Your task to perform on an android device: View the shopping cart on ebay. Search for "logitech g502" on ebay, select the first entry, and add it to the cart. Image 0: 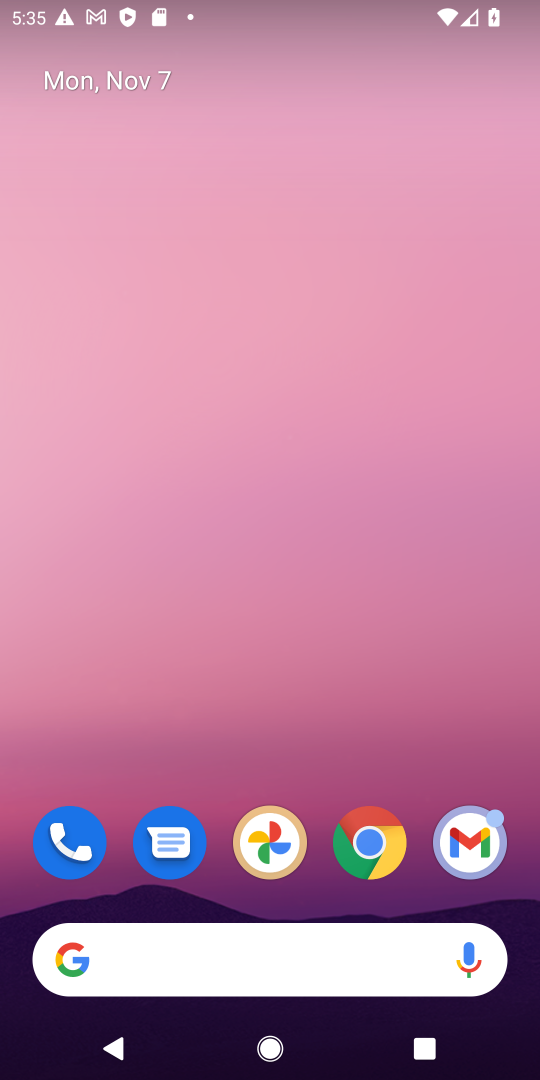
Step 0: drag from (198, 948) to (146, 29)
Your task to perform on an android device: View the shopping cart on ebay. Search for "logitech g502" on ebay, select the first entry, and add it to the cart. Image 1: 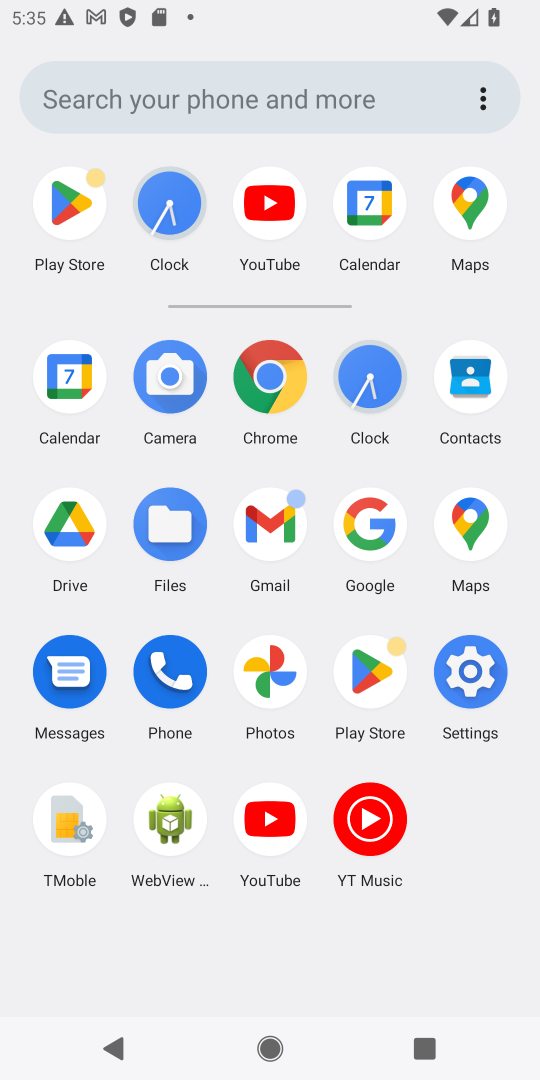
Step 1: click (278, 387)
Your task to perform on an android device: View the shopping cart on ebay. Search for "logitech g502" on ebay, select the first entry, and add it to the cart. Image 2: 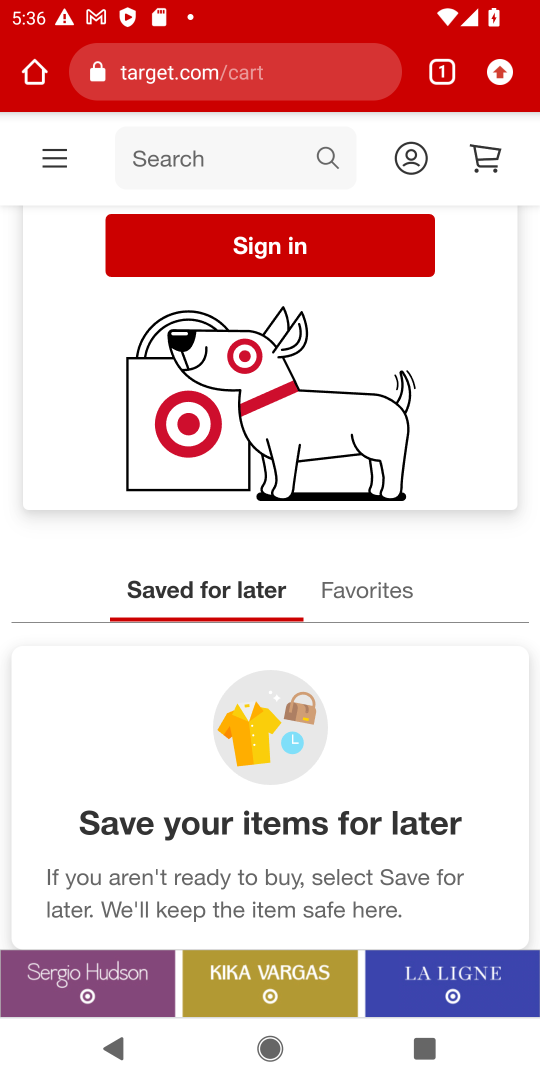
Step 2: click (174, 63)
Your task to perform on an android device: View the shopping cart on ebay. Search for "logitech g502" on ebay, select the first entry, and add it to the cart. Image 3: 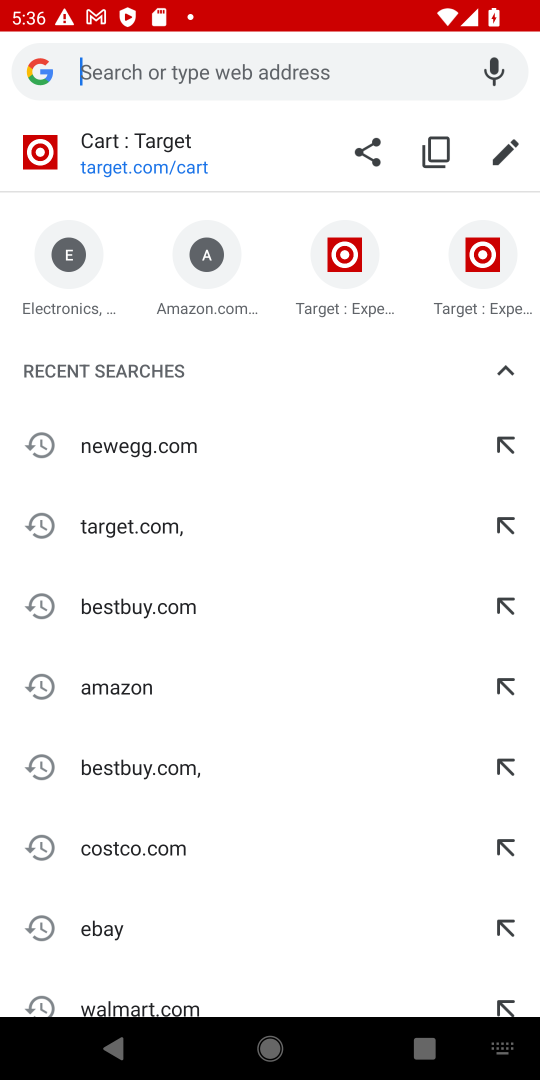
Step 3: type "ebay"
Your task to perform on an android device: View the shopping cart on ebay. Search for "logitech g502" on ebay, select the first entry, and add it to the cart. Image 4: 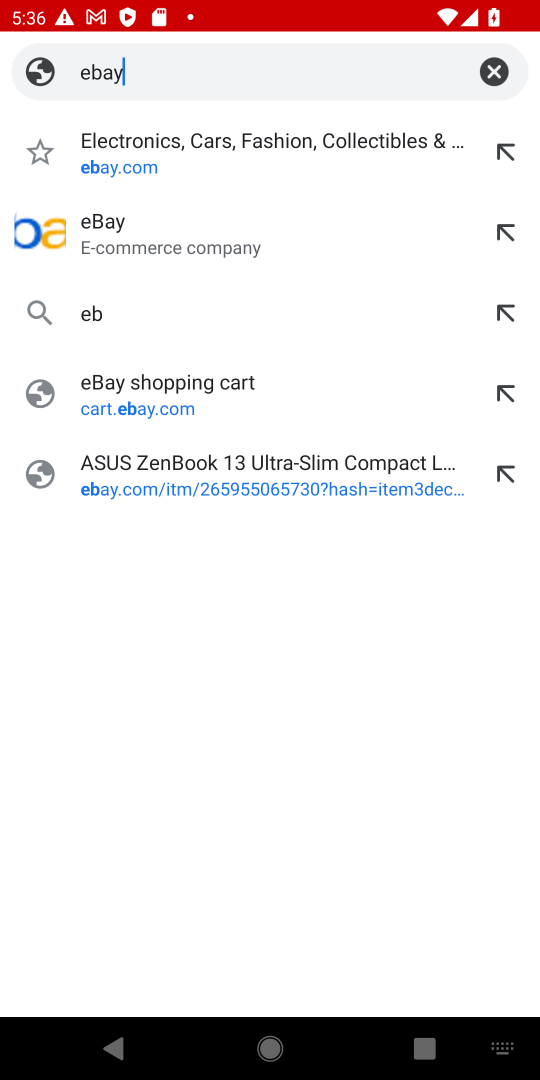
Step 4: press enter
Your task to perform on an android device: View the shopping cart on ebay. Search for "logitech g502" on ebay, select the first entry, and add it to the cart. Image 5: 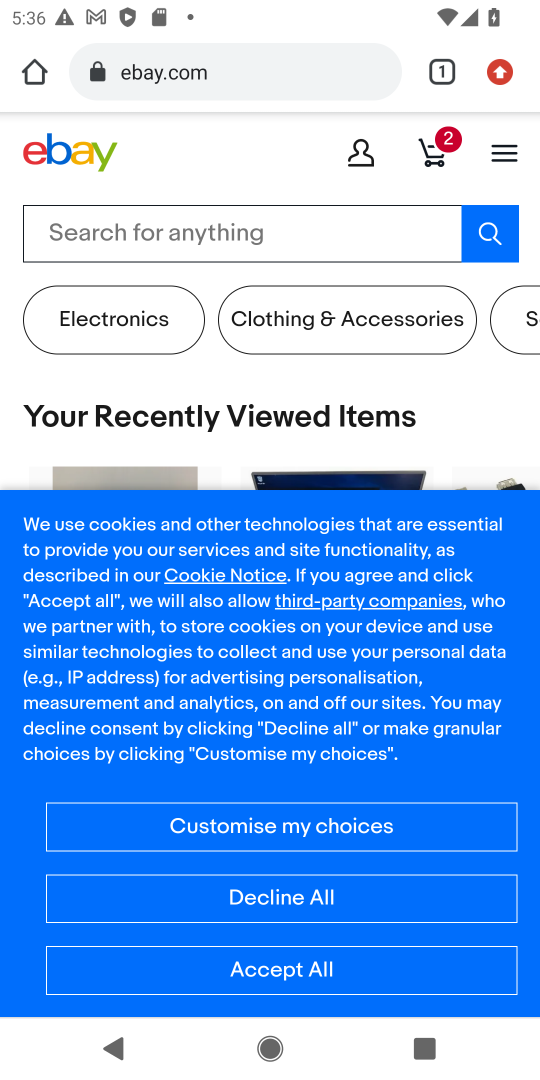
Step 5: click (115, 234)
Your task to perform on an android device: View the shopping cart on ebay. Search for "logitech g502" on ebay, select the first entry, and add it to the cart. Image 6: 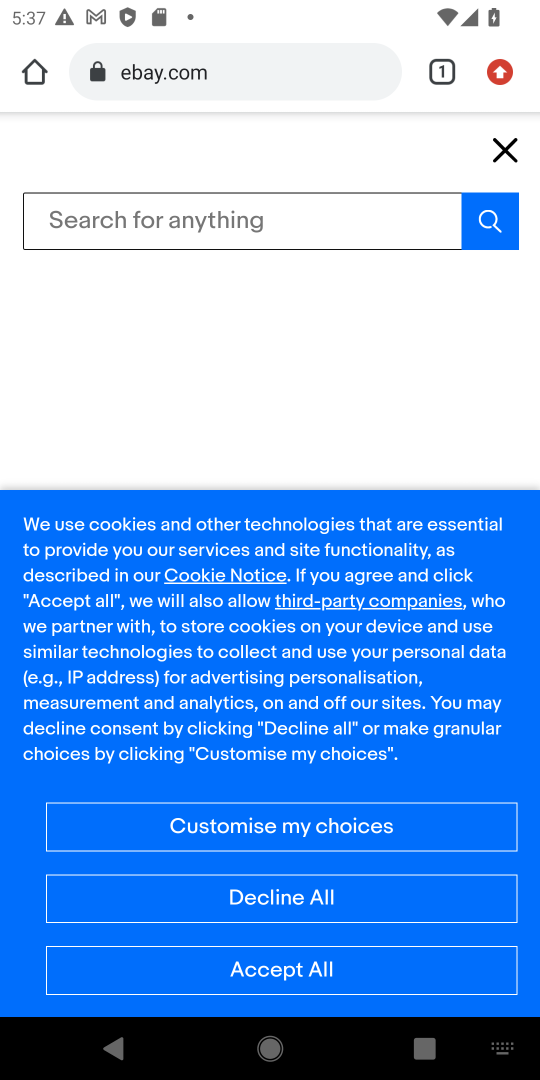
Step 6: type "logitech g502"
Your task to perform on an android device: View the shopping cart on ebay. Search for "logitech g502" on ebay, select the first entry, and add it to the cart. Image 7: 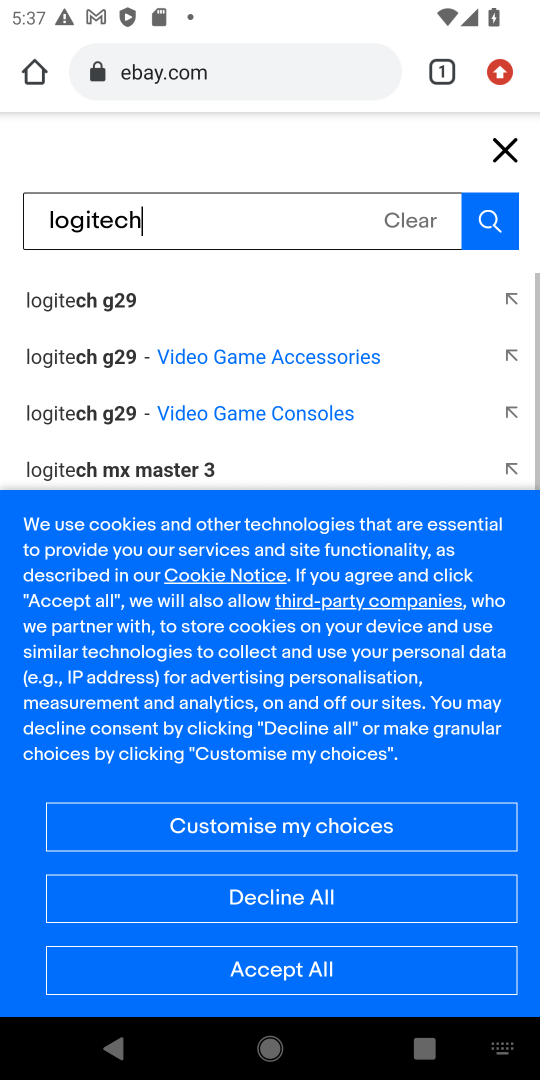
Step 7: press enter
Your task to perform on an android device: View the shopping cart on ebay. Search for "logitech g502" on ebay, select the first entry, and add it to the cart. Image 8: 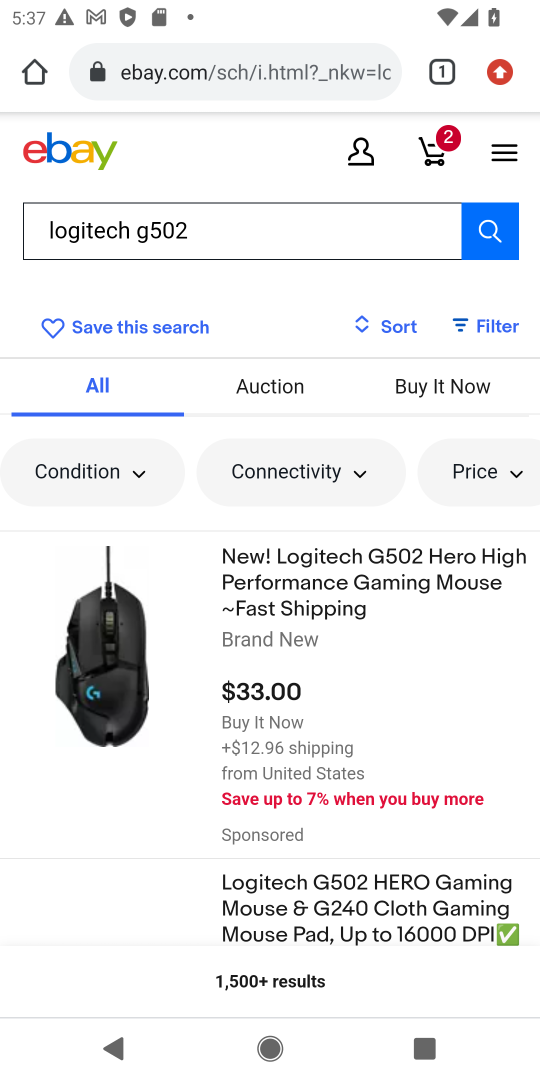
Step 8: drag from (363, 782) to (345, 423)
Your task to perform on an android device: View the shopping cart on ebay. Search for "logitech g502" on ebay, select the first entry, and add it to the cart. Image 9: 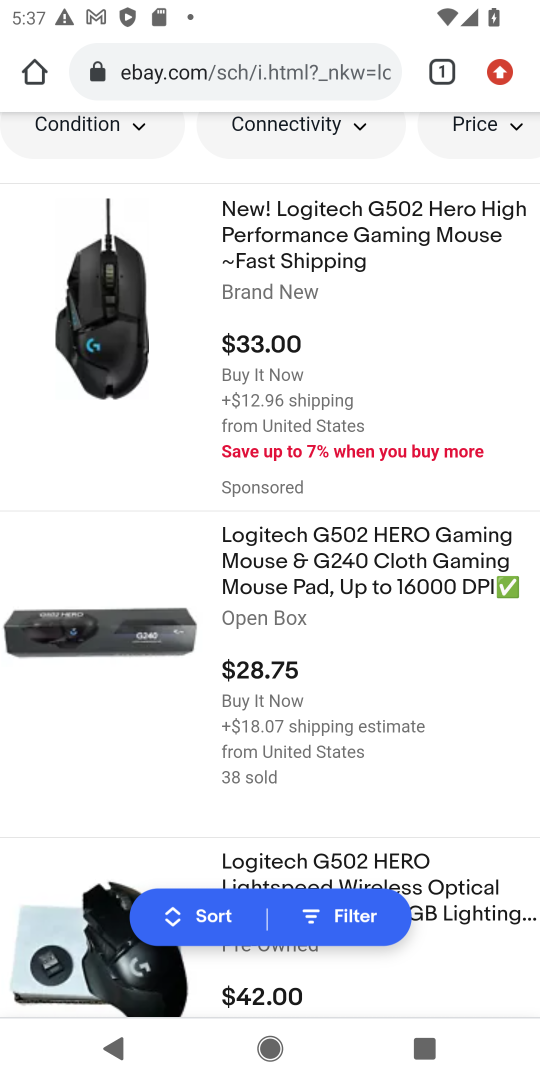
Step 9: click (305, 291)
Your task to perform on an android device: View the shopping cart on ebay. Search for "logitech g502" on ebay, select the first entry, and add it to the cart. Image 10: 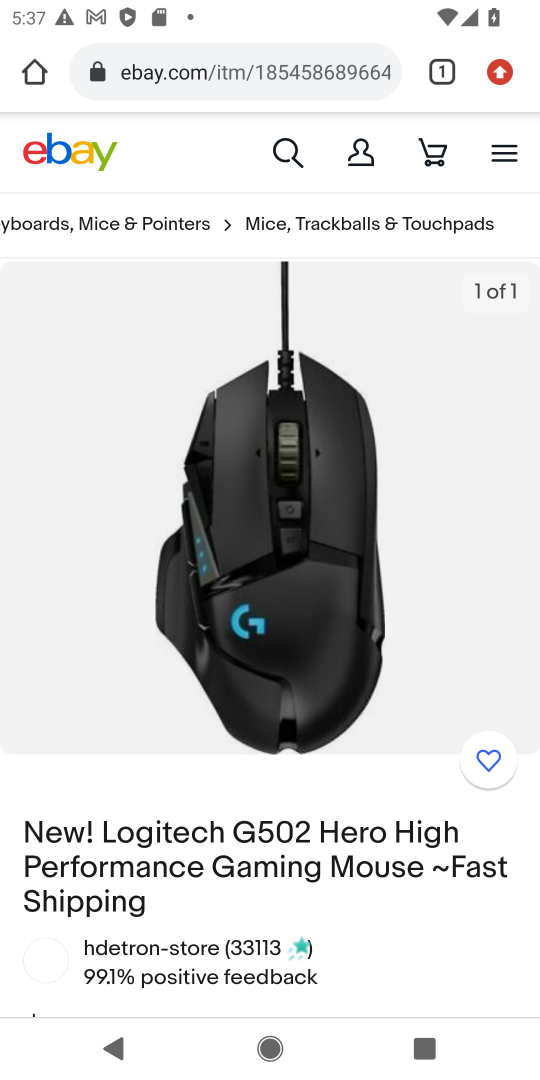
Step 10: drag from (383, 912) to (317, 453)
Your task to perform on an android device: View the shopping cart on ebay. Search for "logitech g502" on ebay, select the first entry, and add it to the cart. Image 11: 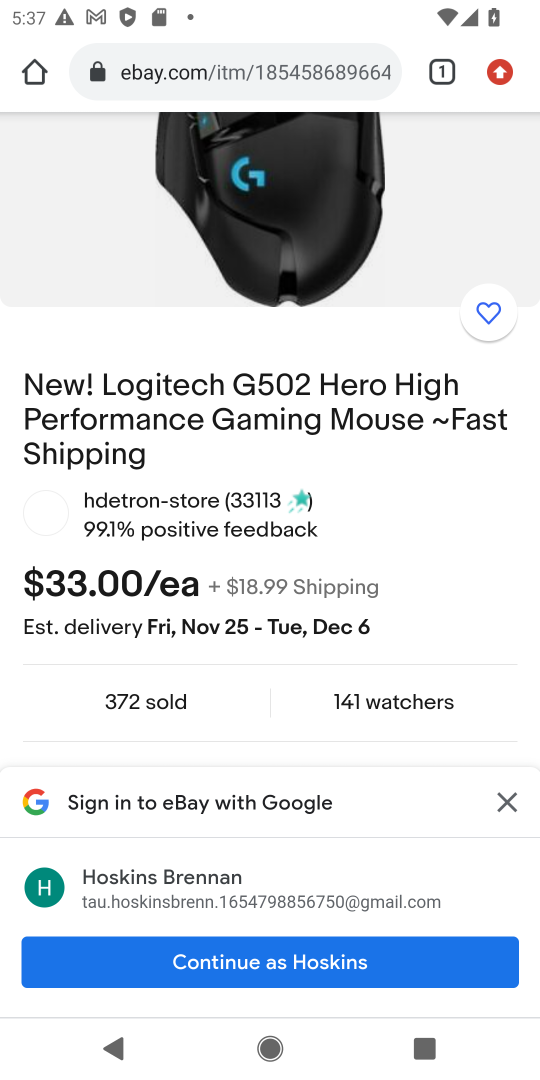
Step 11: drag from (363, 889) to (325, 324)
Your task to perform on an android device: View the shopping cart on ebay. Search for "logitech g502" on ebay, select the first entry, and add it to the cart. Image 12: 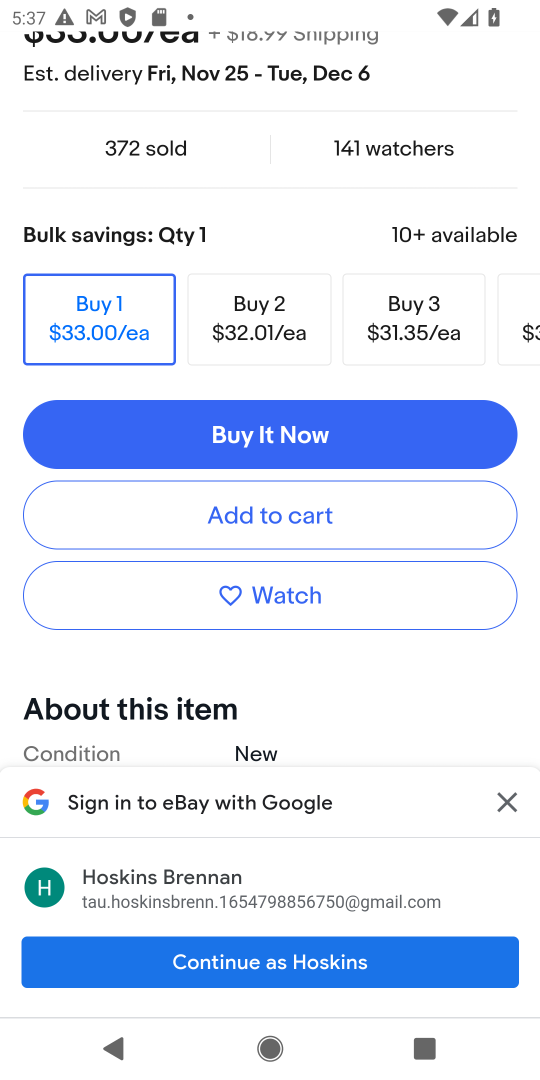
Step 12: click (275, 519)
Your task to perform on an android device: View the shopping cart on ebay. Search for "logitech g502" on ebay, select the first entry, and add it to the cart. Image 13: 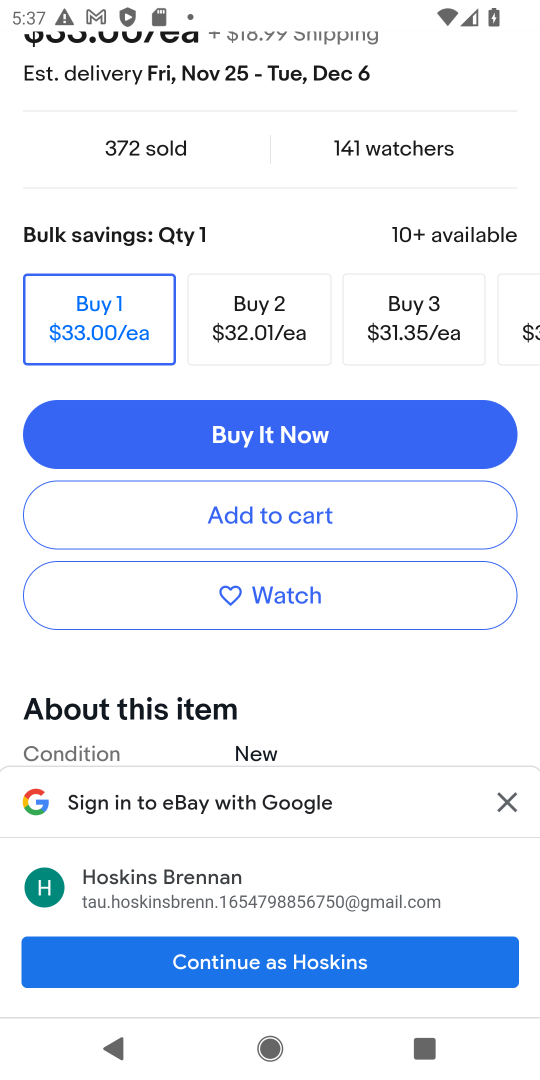
Step 13: click (312, 516)
Your task to perform on an android device: View the shopping cart on ebay. Search for "logitech g502" on ebay, select the first entry, and add it to the cart. Image 14: 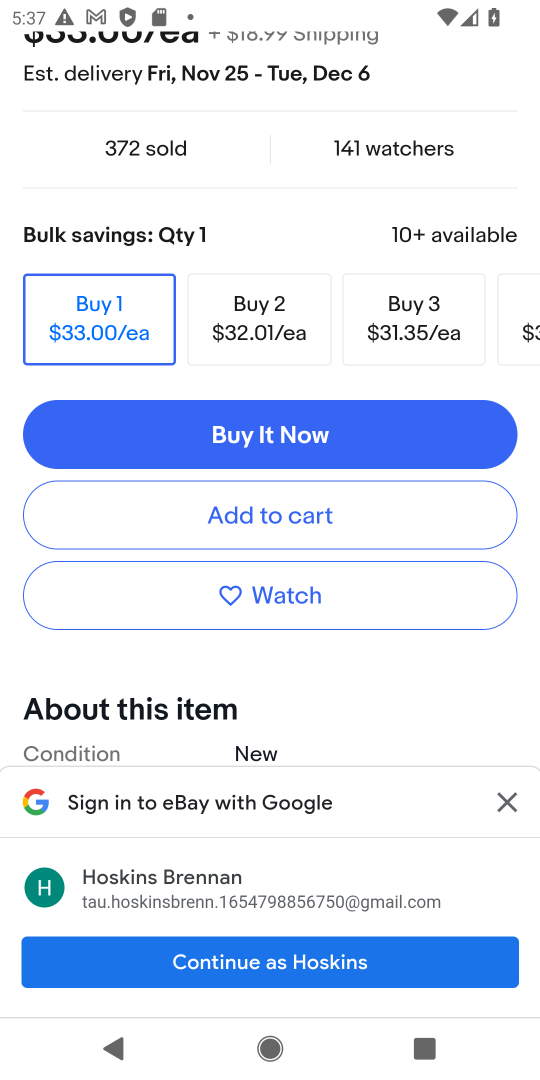
Step 14: click (283, 517)
Your task to perform on an android device: View the shopping cart on ebay. Search for "logitech g502" on ebay, select the first entry, and add it to the cart. Image 15: 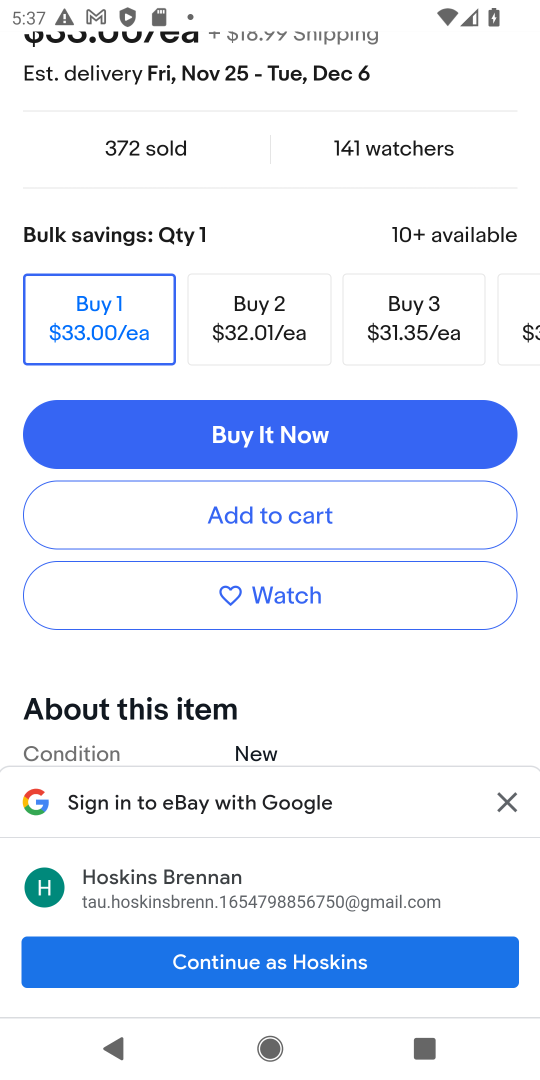
Step 15: click (284, 517)
Your task to perform on an android device: View the shopping cart on ebay. Search for "logitech g502" on ebay, select the first entry, and add it to the cart. Image 16: 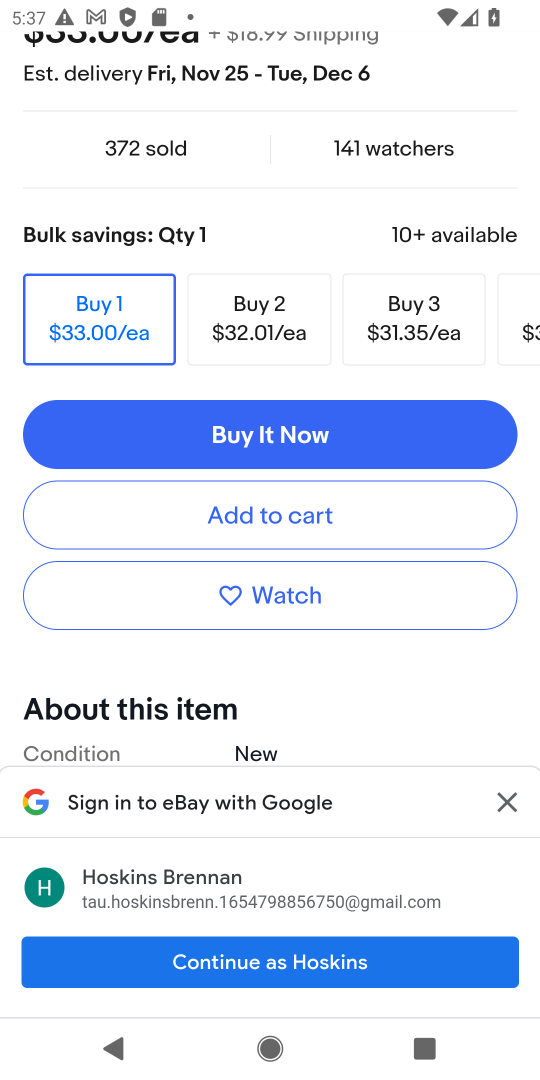
Step 16: click (286, 497)
Your task to perform on an android device: View the shopping cart on ebay. Search for "logitech g502" on ebay, select the first entry, and add it to the cart. Image 17: 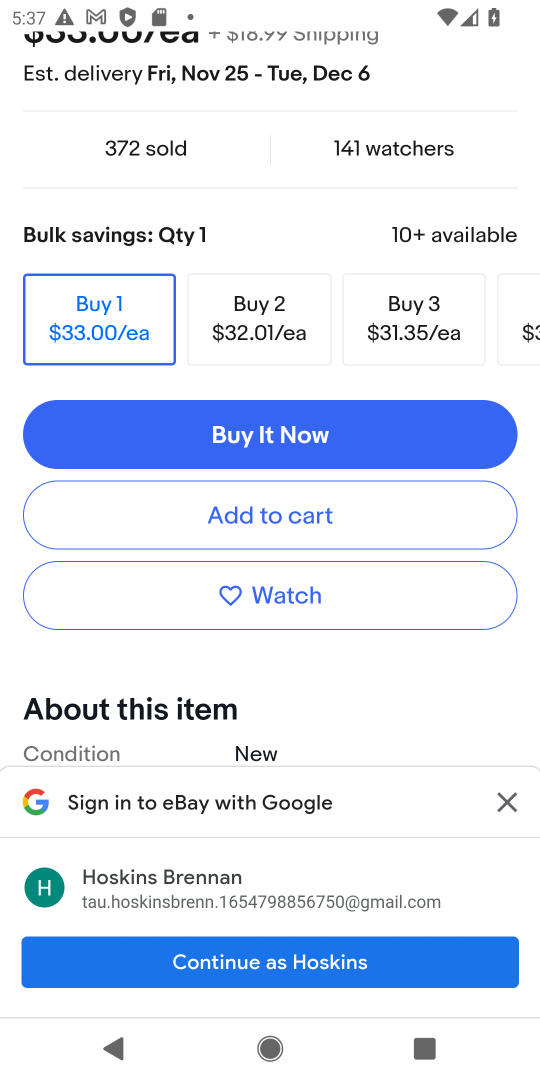
Step 17: click (288, 513)
Your task to perform on an android device: View the shopping cart on ebay. Search for "logitech g502" on ebay, select the first entry, and add it to the cart. Image 18: 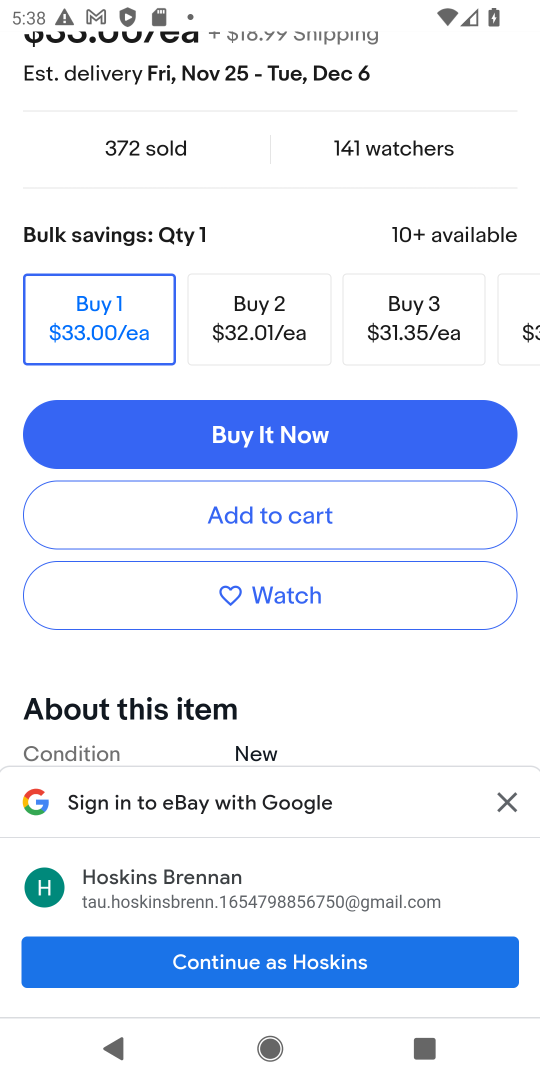
Step 18: drag from (365, 239) to (476, 639)
Your task to perform on an android device: View the shopping cart on ebay. Search for "logitech g502" on ebay, select the first entry, and add it to the cart. Image 19: 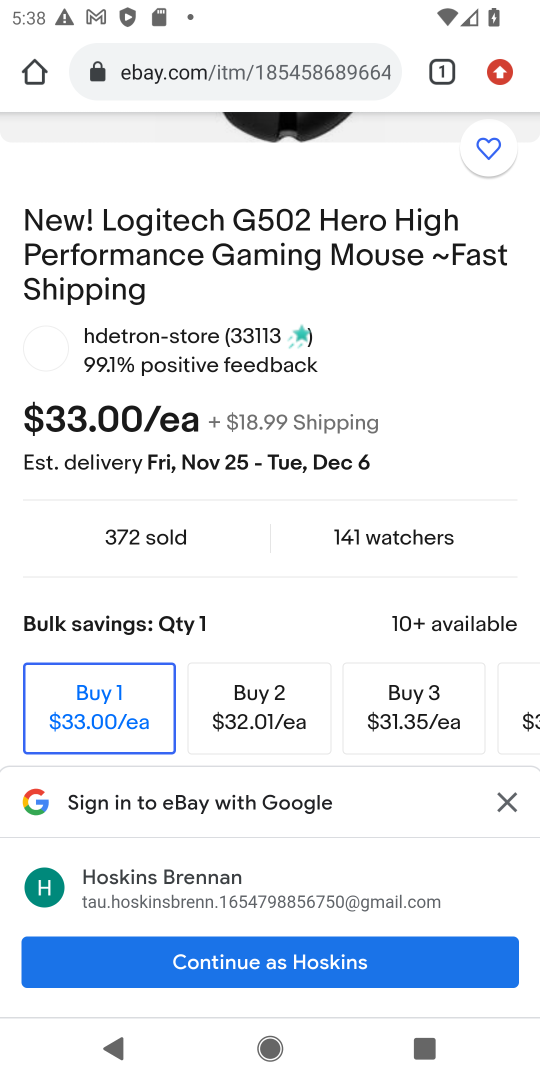
Step 19: drag from (357, 737) to (341, 268)
Your task to perform on an android device: View the shopping cart on ebay. Search for "logitech g502" on ebay, select the first entry, and add it to the cart. Image 20: 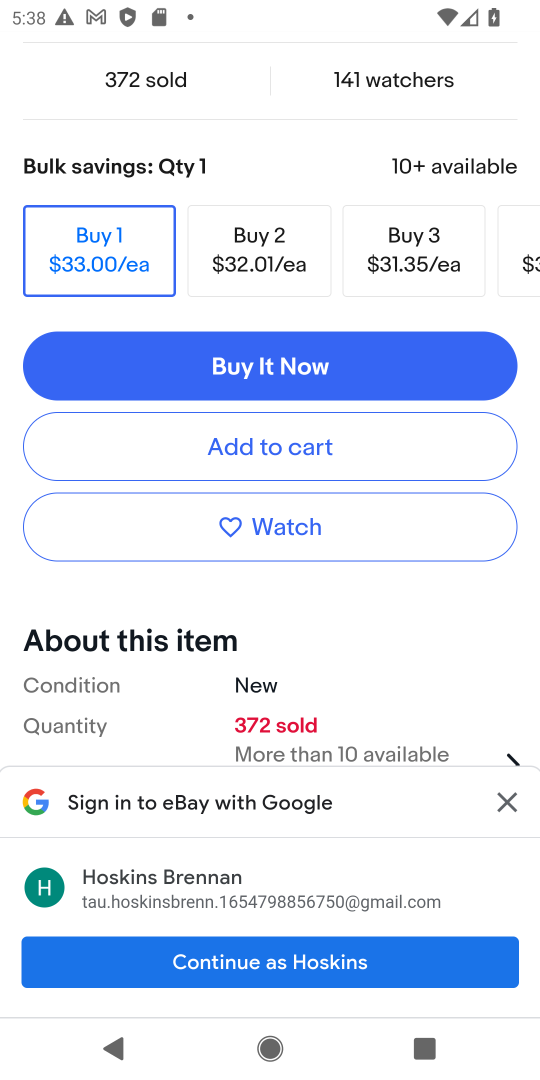
Step 20: click (257, 439)
Your task to perform on an android device: View the shopping cart on ebay. Search for "logitech g502" on ebay, select the first entry, and add it to the cart. Image 21: 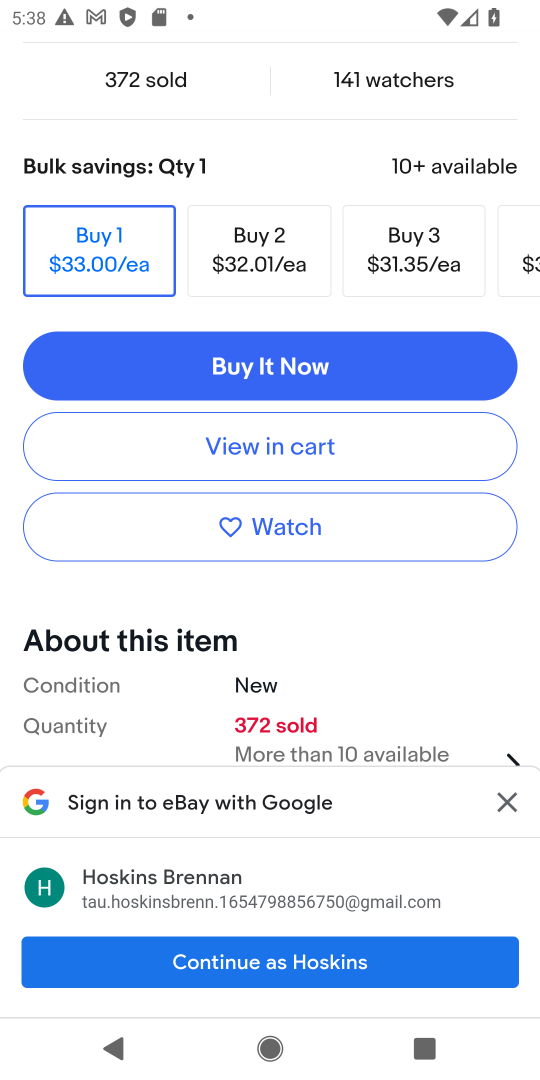
Step 21: task complete